Your task to perform on an android device: check the backup settings in the google photos Image 0: 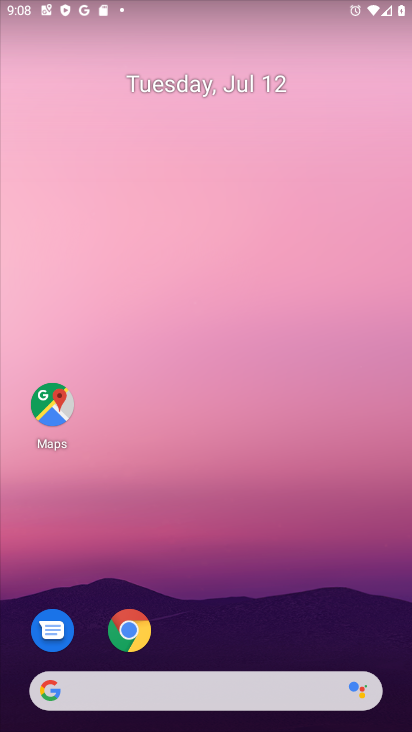
Step 0: drag from (198, 654) to (176, 338)
Your task to perform on an android device: check the backup settings in the google photos Image 1: 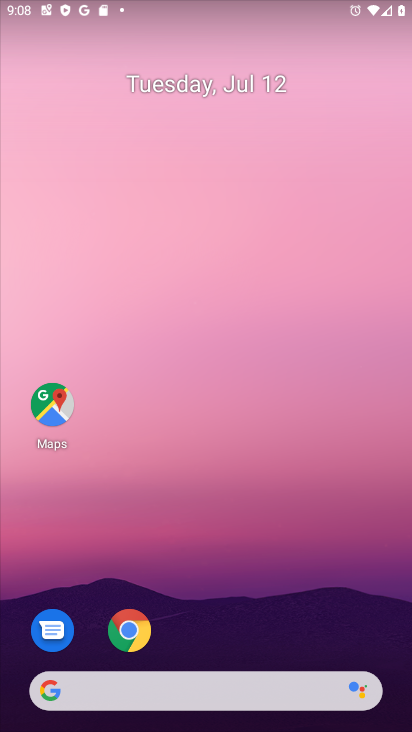
Step 1: drag from (247, 632) to (239, 29)
Your task to perform on an android device: check the backup settings in the google photos Image 2: 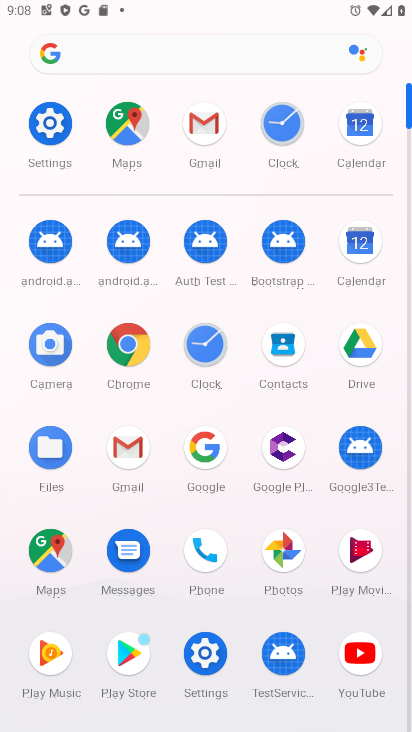
Step 2: click (284, 548)
Your task to perform on an android device: check the backup settings in the google photos Image 3: 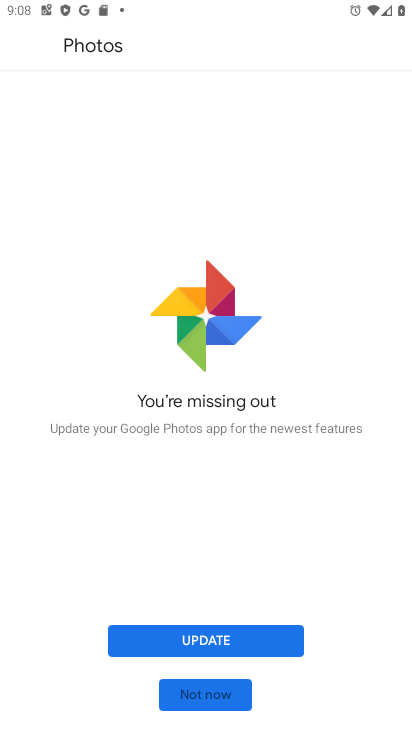
Step 3: click (212, 642)
Your task to perform on an android device: check the backup settings in the google photos Image 4: 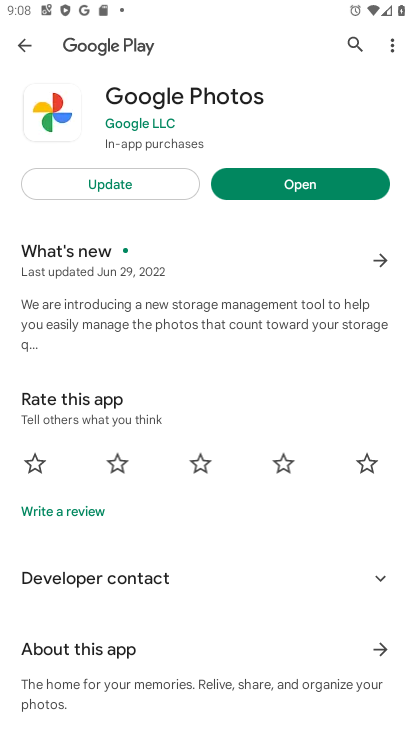
Step 4: click (119, 183)
Your task to perform on an android device: check the backup settings in the google photos Image 5: 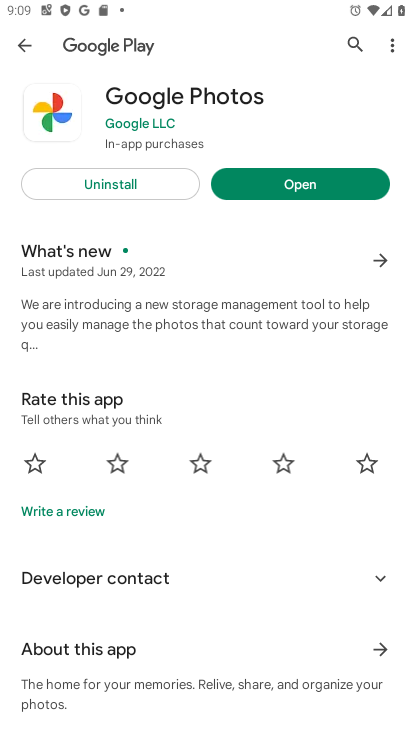
Step 5: click (322, 194)
Your task to perform on an android device: check the backup settings in the google photos Image 6: 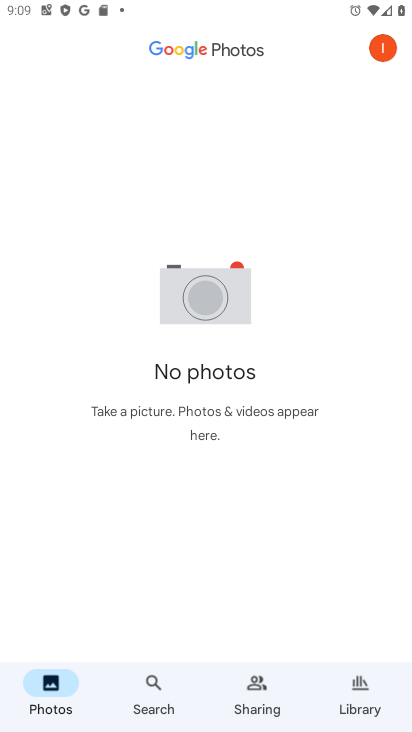
Step 6: click (380, 47)
Your task to perform on an android device: check the backup settings in the google photos Image 7: 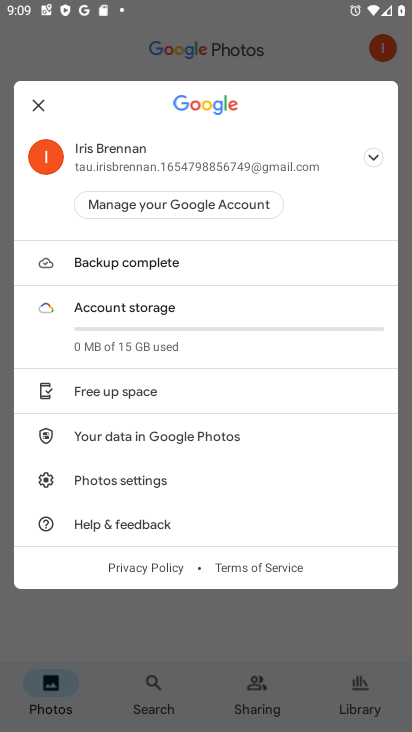
Step 7: click (119, 485)
Your task to perform on an android device: check the backup settings in the google photos Image 8: 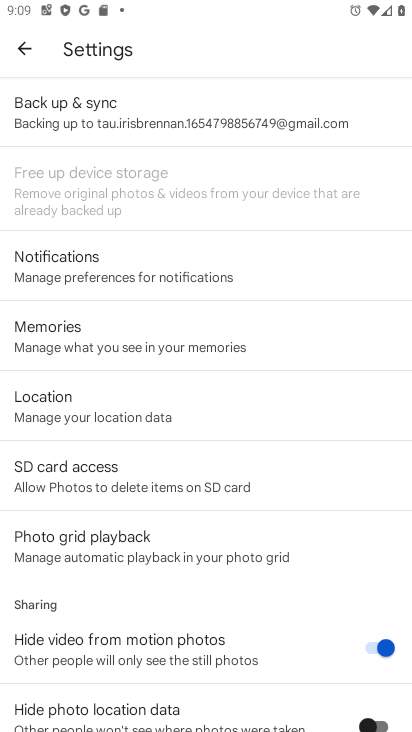
Step 8: click (96, 108)
Your task to perform on an android device: check the backup settings in the google photos Image 9: 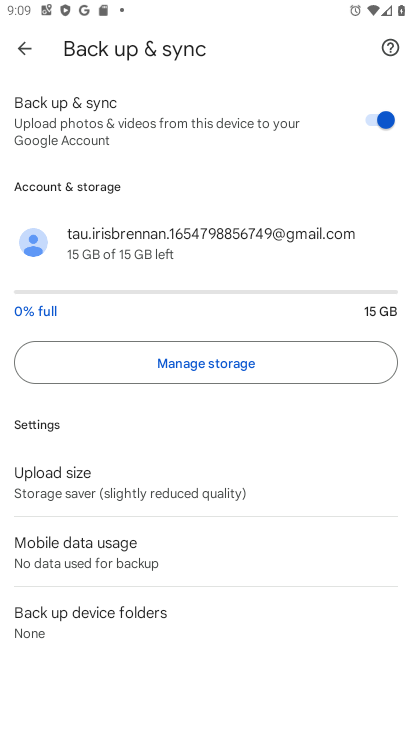
Step 9: task complete